Your task to perform on an android device: Set the phone to "Do not disturb". Image 0: 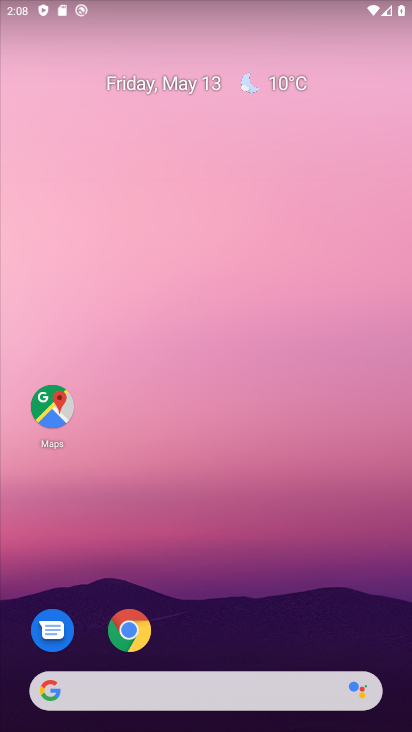
Step 0: drag from (190, 2) to (196, 526)
Your task to perform on an android device: Set the phone to "Do not disturb". Image 1: 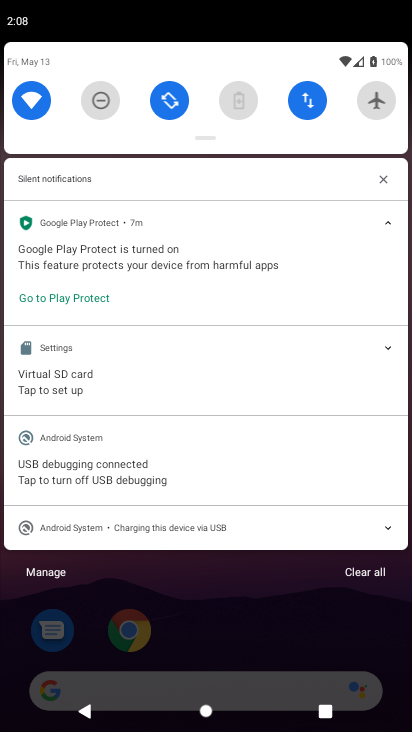
Step 1: click (99, 98)
Your task to perform on an android device: Set the phone to "Do not disturb". Image 2: 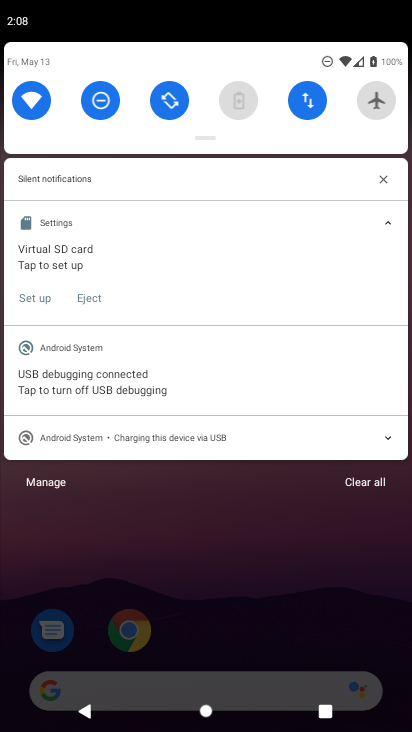
Step 2: task complete